Your task to perform on an android device: toggle notifications settings in the gmail app Image 0: 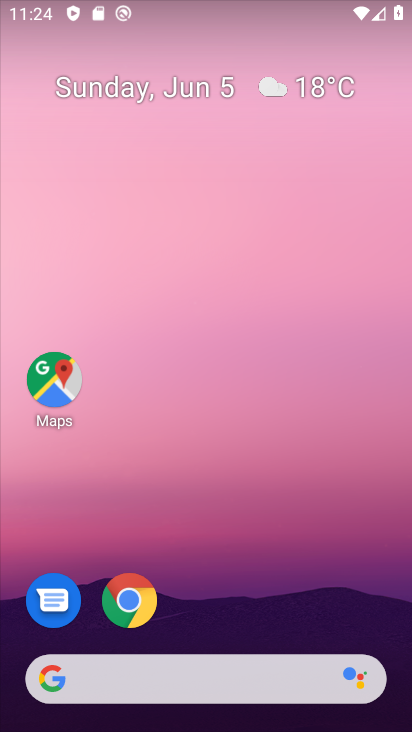
Step 0: drag from (148, 725) to (87, 54)
Your task to perform on an android device: toggle notifications settings in the gmail app Image 1: 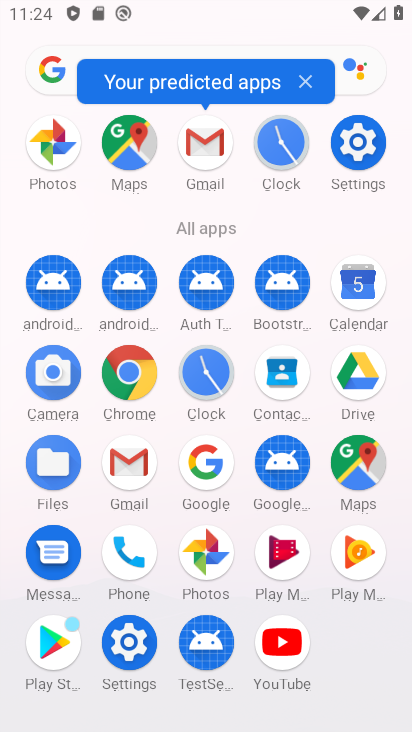
Step 1: click (121, 469)
Your task to perform on an android device: toggle notifications settings in the gmail app Image 2: 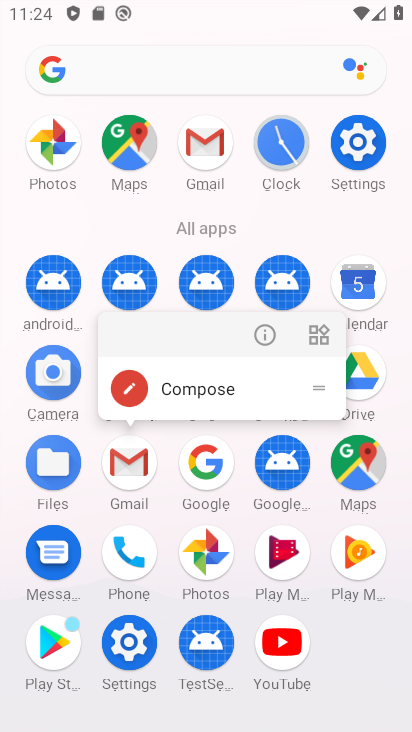
Step 2: click (119, 461)
Your task to perform on an android device: toggle notifications settings in the gmail app Image 3: 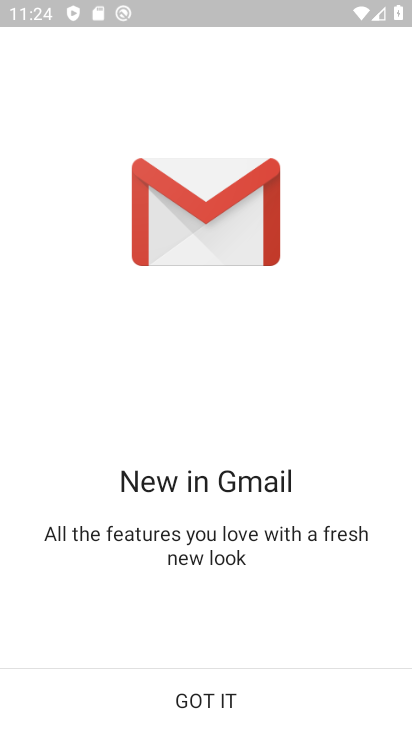
Step 3: click (253, 714)
Your task to perform on an android device: toggle notifications settings in the gmail app Image 4: 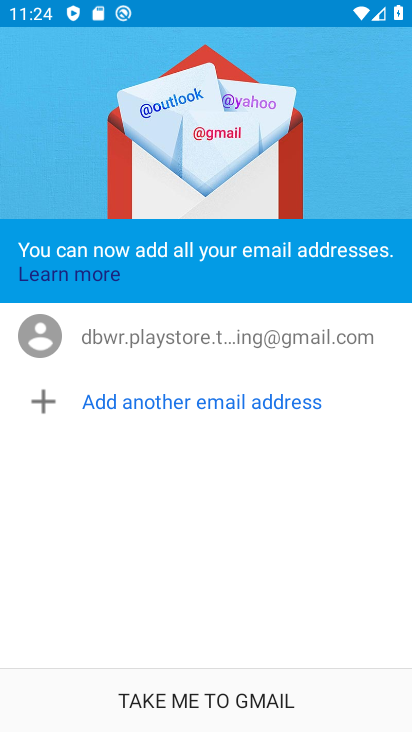
Step 4: click (181, 719)
Your task to perform on an android device: toggle notifications settings in the gmail app Image 5: 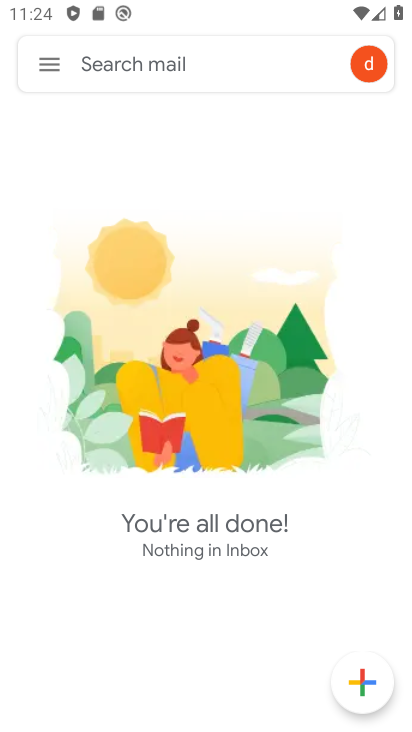
Step 5: click (28, 63)
Your task to perform on an android device: toggle notifications settings in the gmail app Image 6: 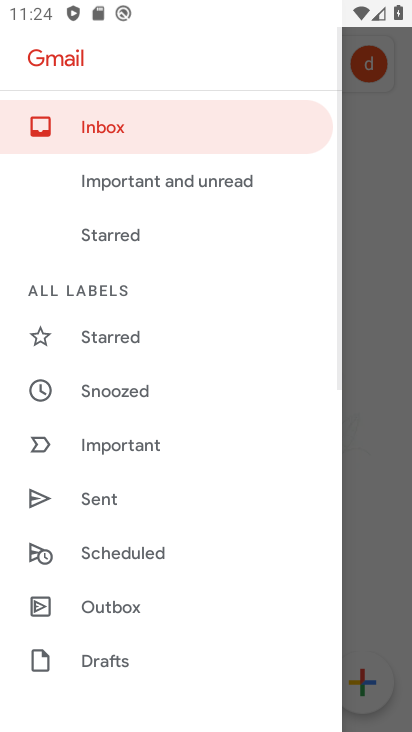
Step 6: drag from (215, 662) to (173, 195)
Your task to perform on an android device: toggle notifications settings in the gmail app Image 7: 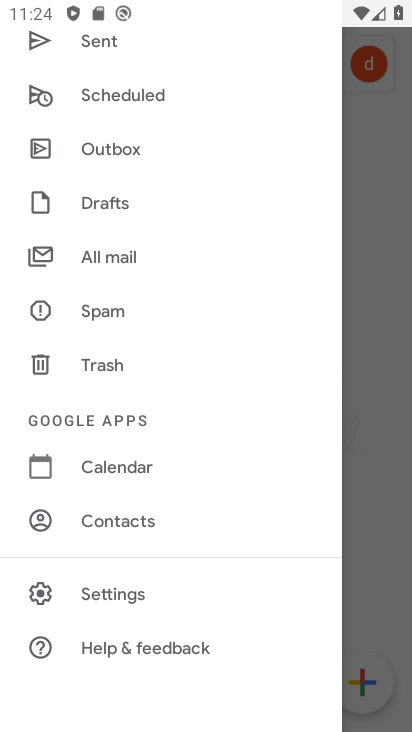
Step 7: click (134, 601)
Your task to perform on an android device: toggle notifications settings in the gmail app Image 8: 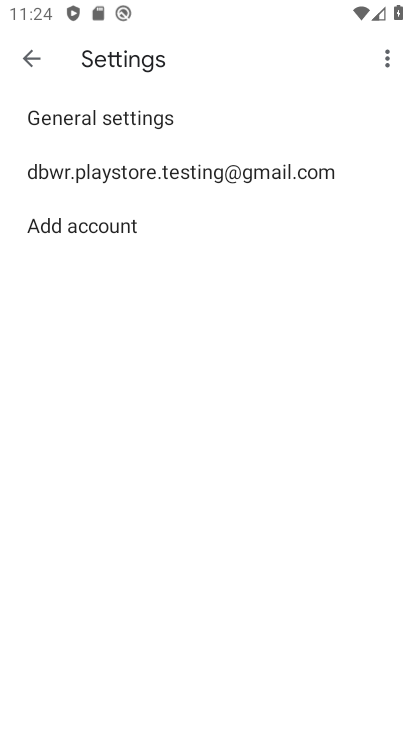
Step 8: click (203, 172)
Your task to perform on an android device: toggle notifications settings in the gmail app Image 9: 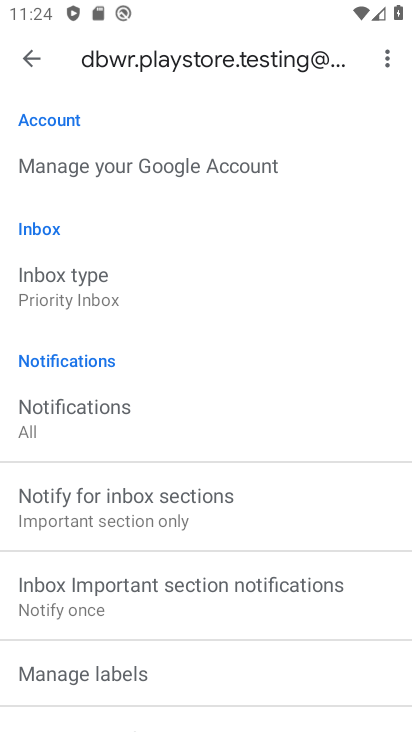
Step 9: click (143, 424)
Your task to perform on an android device: toggle notifications settings in the gmail app Image 10: 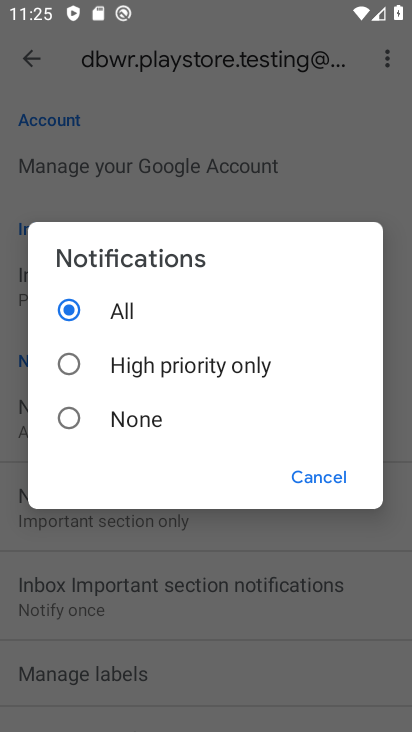
Step 10: click (139, 421)
Your task to perform on an android device: toggle notifications settings in the gmail app Image 11: 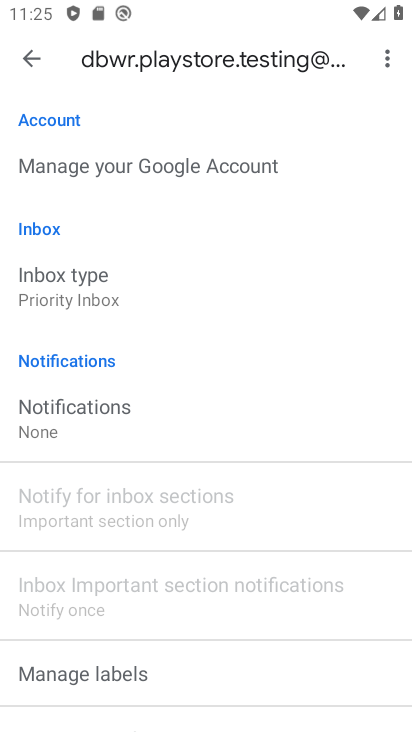
Step 11: task complete